Your task to perform on an android device: read, delete, or share a saved page in the chrome app Image 0: 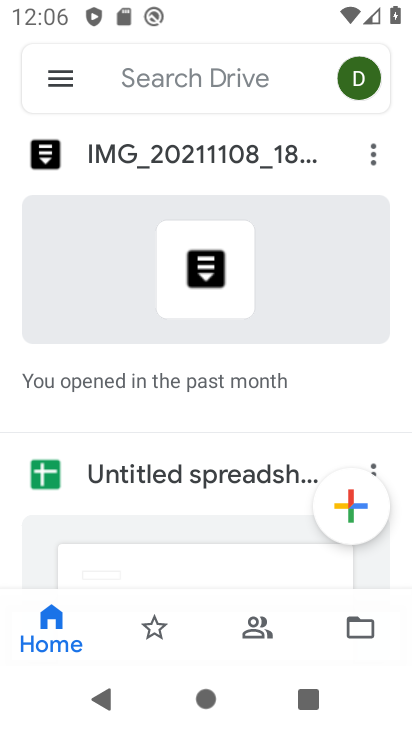
Step 0: press home button
Your task to perform on an android device: read, delete, or share a saved page in the chrome app Image 1: 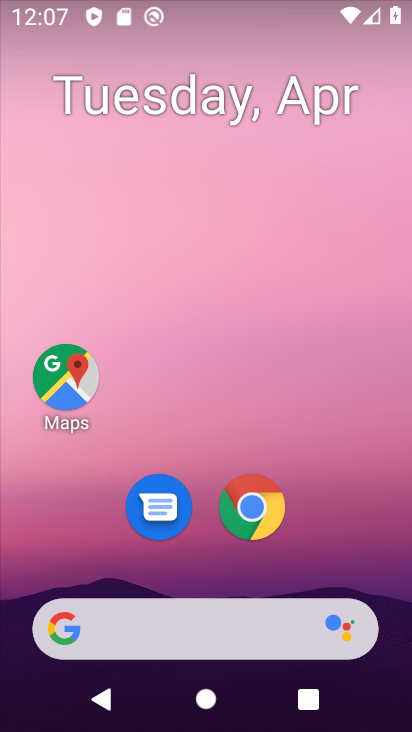
Step 1: click (260, 512)
Your task to perform on an android device: read, delete, or share a saved page in the chrome app Image 2: 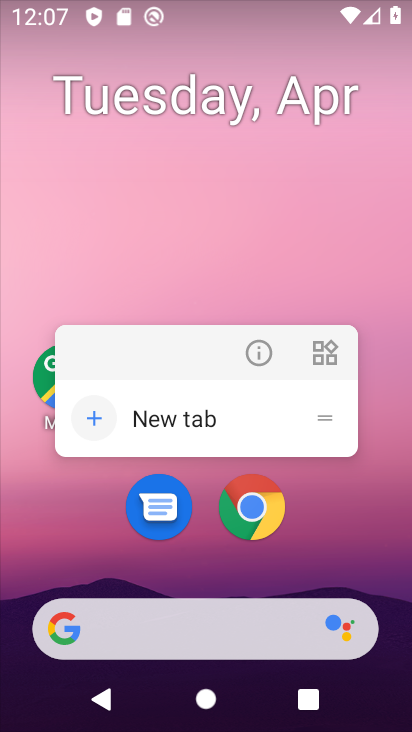
Step 2: click (259, 520)
Your task to perform on an android device: read, delete, or share a saved page in the chrome app Image 3: 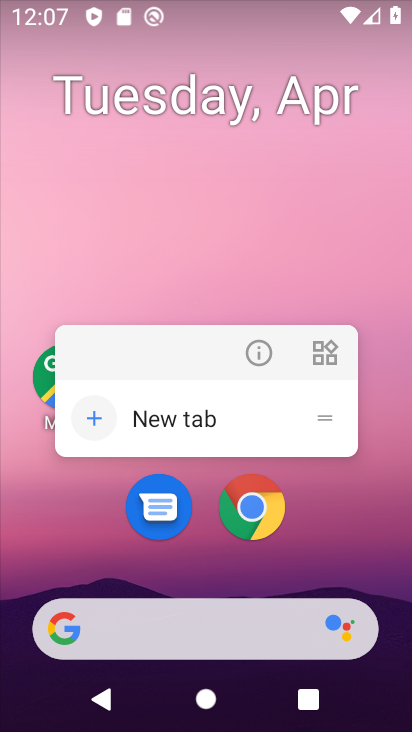
Step 3: click (255, 510)
Your task to perform on an android device: read, delete, or share a saved page in the chrome app Image 4: 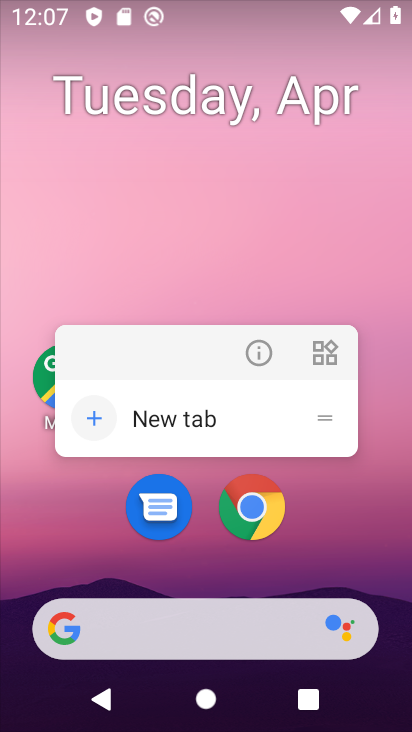
Step 4: click (250, 502)
Your task to perform on an android device: read, delete, or share a saved page in the chrome app Image 5: 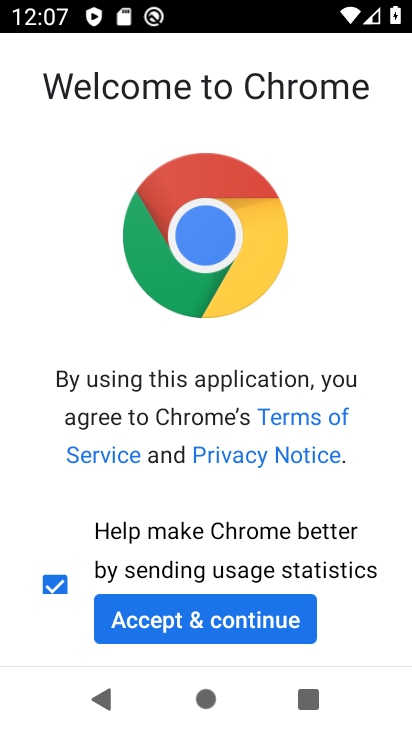
Step 5: click (256, 610)
Your task to perform on an android device: read, delete, or share a saved page in the chrome app Image 6: 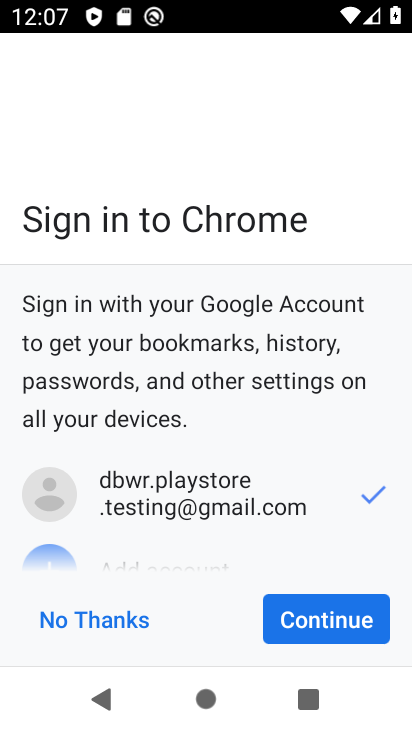
Step 6: click (311, 609)
Your task to perform on an android device: read, delete, or share a saved page in the chrome app Image 7: 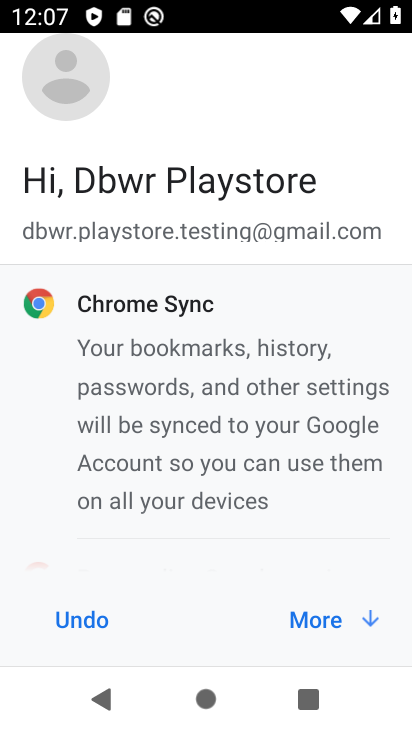
Step 7: click (318, 595)
Your task to perform on an android device: read, delete, or share a saved page in the chrome app Image 8: 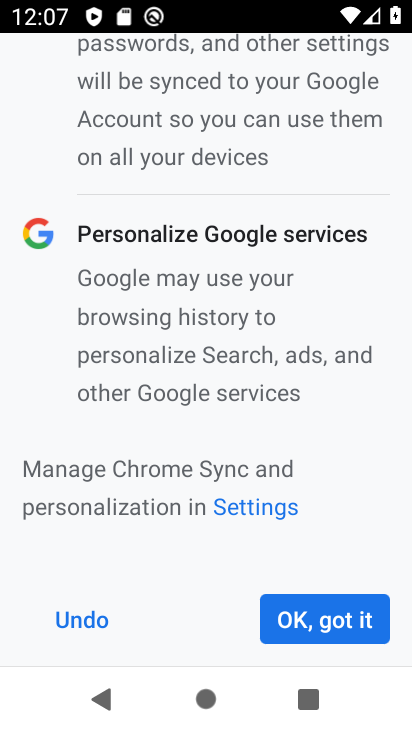
Step 8: click (329, 625)
Your task to perform on an android device: read, delete, or share a saved page in the chrome app Image 9: 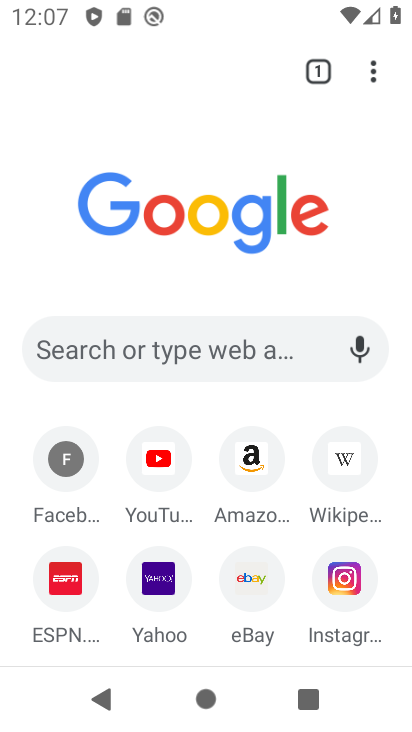
Step 9: click (375, 67)
Your task to perform on an android device: read, delete, or share a saved page in the chrome app Image 10: 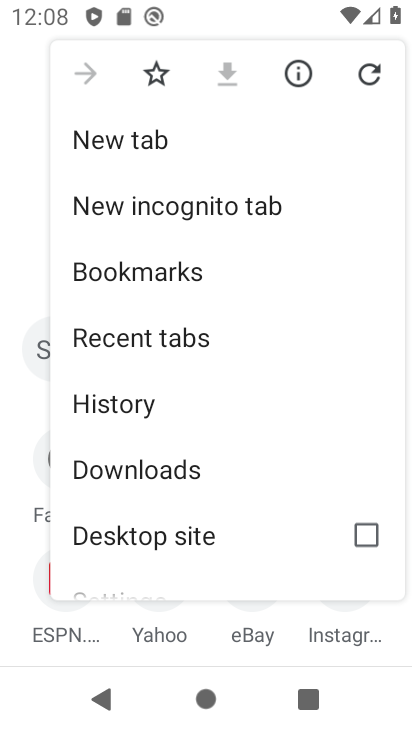
Step 10: click (159, 462)
Your task to perform on an android device: read, delete, or share a saved page in the chrome app Image 11: 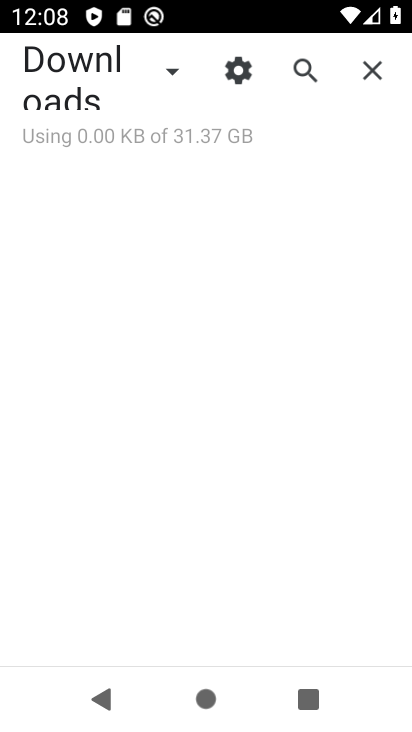
Step 11: click (170, 66)
Your task to perform on an android device: read, delete, or share a saved page in the chrome app Image 12: 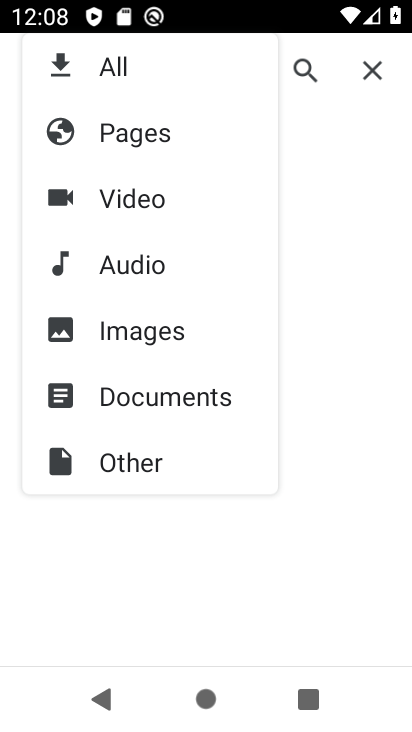
Step 12: click (142, 138)
Your task to perform on an android device: read, delete, or share a saved page in the chrome app Image 13: 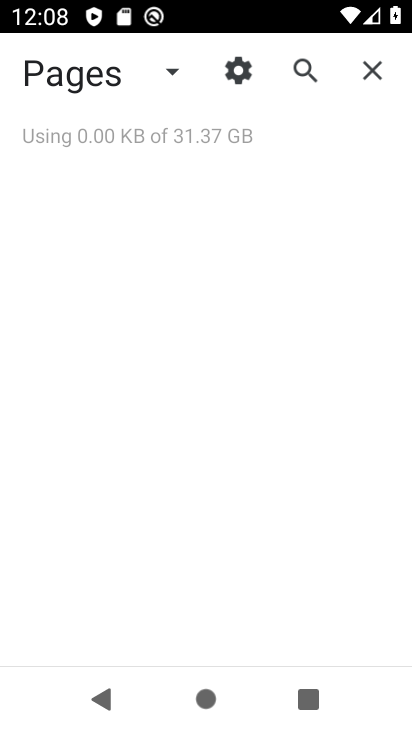
Step 13: task complete